Your task to perform on an android device: Add "duracell triple a" to the cart on ebay, then select checkout. Image 0: 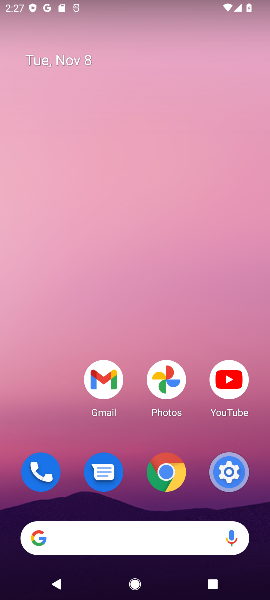
Step 0: click (164, 543)
Your task to perform on an android device: Add "duracell triple a" to the cart on ebay, then select checkout. Image 1: 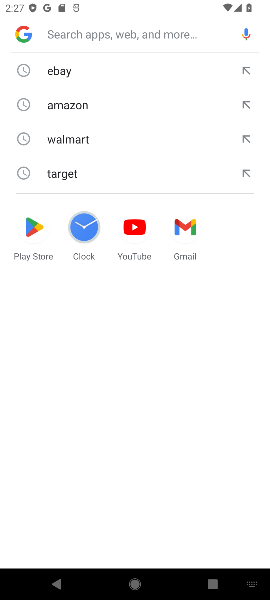
Step 1: click (99, 66)
Your task to perform on an android device: Add "duracell triple a" to the cart on ebay, then select checkout. Image 2: 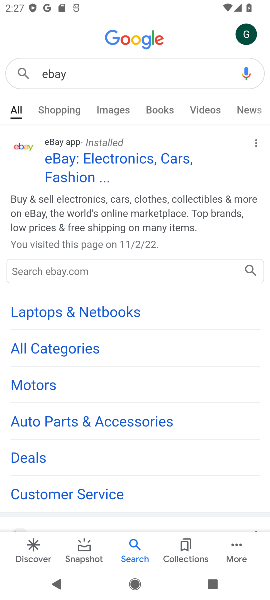
Step 2: click (121, 171)
Your task to perform on an android device: Add "duracell triple a" to the cart on ebay, then select checkout. Image 3: 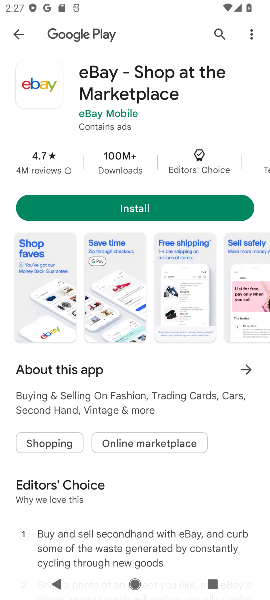
Step 3: task complete